Your task to perform on an android device: Open battery settings Image 0: 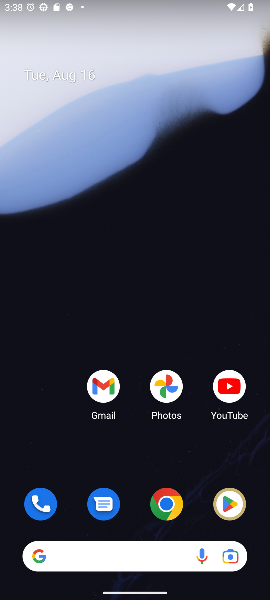
Step 0: drag from (131, 487) to (123, 15)
Your task to perform on an android device: Open battery settings Image 1: 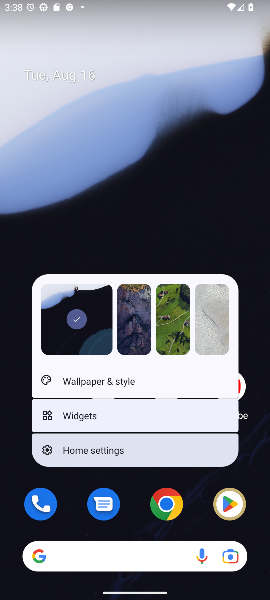
Step 1: click (135, 136)
Your task to perform on an android device: Open battery settings Image 2: 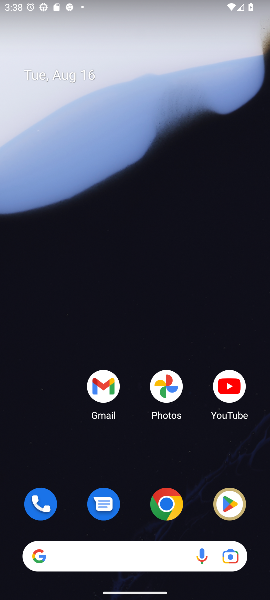
Step 2: drag from (138, 530) to (133, 145)
Your task to perform on an android device: Open battery settings Image 3: 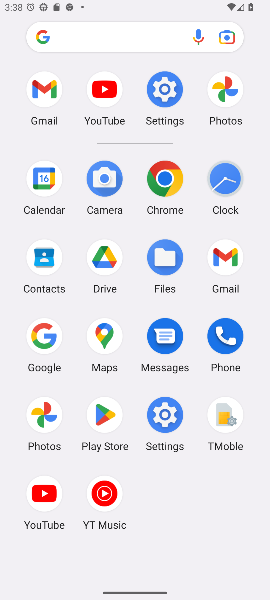
Step 3: click (163, 89)
Your task to perform on an android device: Open battery settings Image 4: 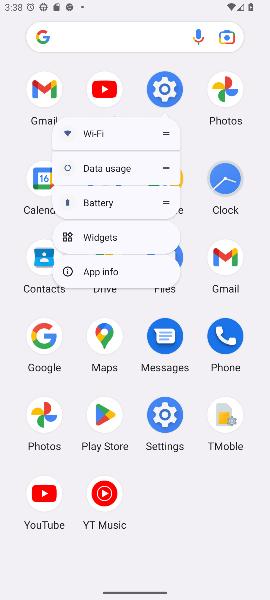
Step 4: click (168, 91)
Your task to perform on an android device: Open battery settings Image 5: 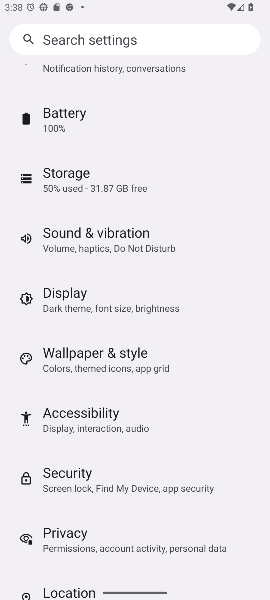
Step 5: click (65, 112)
Your task to perform on an android device: Open battery settings Image 6: 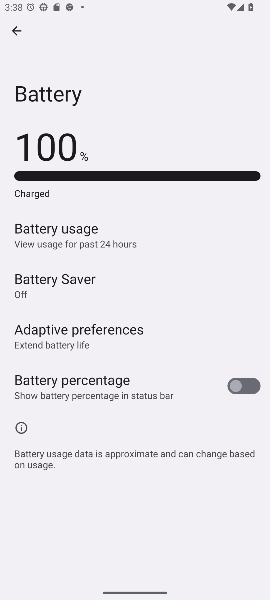
Step 6: task complete